Your task to perform on an android device: turn pop-ups on in chrome Image 0: 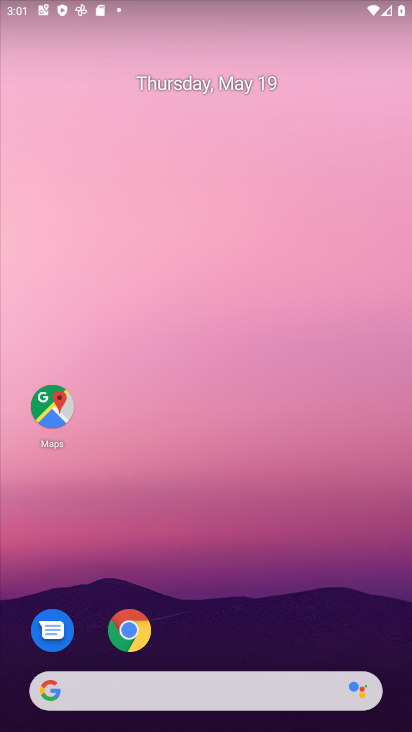
Step 0: click (129, 631)
Your task to perform on an android device: turn pop-ups on in chrome Image 1: 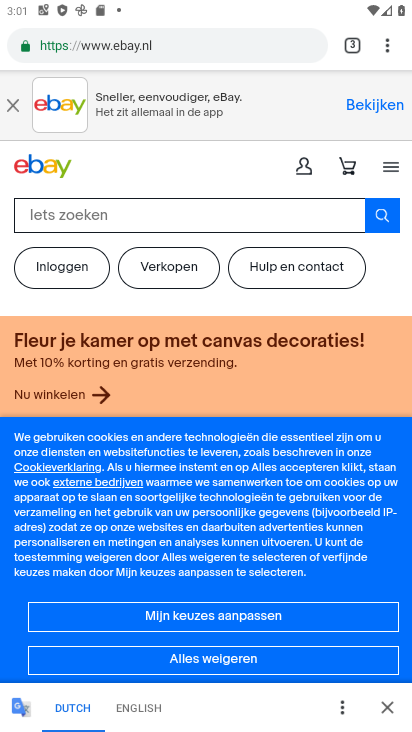
Step 1: click (385, 50)
Your task to perform on an android device: turn pop-ups on in chrome Image 2: 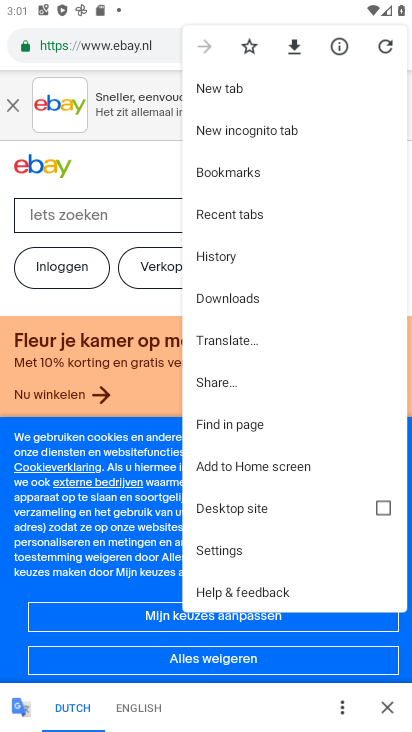
Step 2: click (227, 545)
Your task to perform on an android device: turn pop-ups on in chrome Image 3: 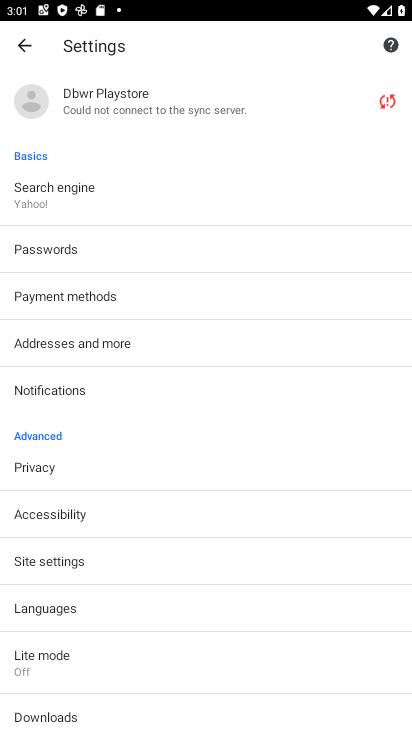
Step 3: click (54, 562)
Your task to perform on an android device: turn pop-ups on in chrome Image 4: 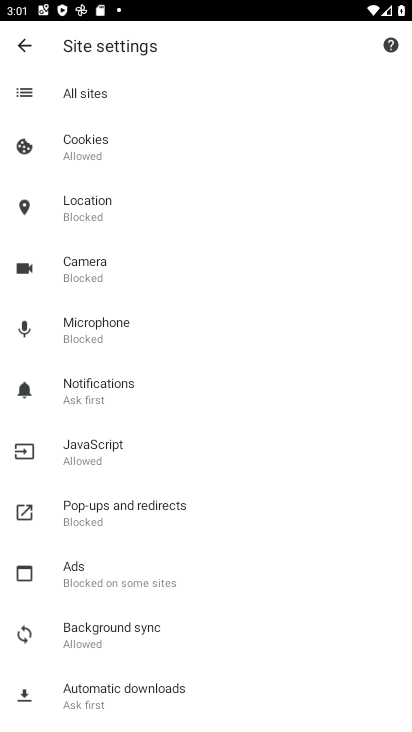
Step 4: click (108, 506)
Your task to perform on an android device: turn pop-ups on in chrome Image 5: 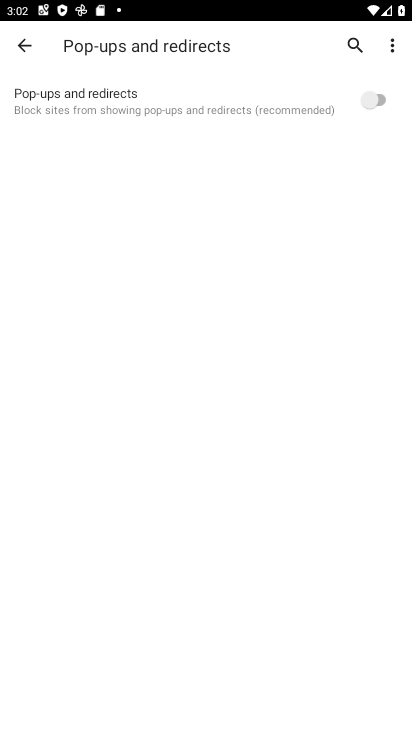
Step 5: click (378, 98)
Your task to perform on an android device: turn pop-ups on in chrome Image 6: 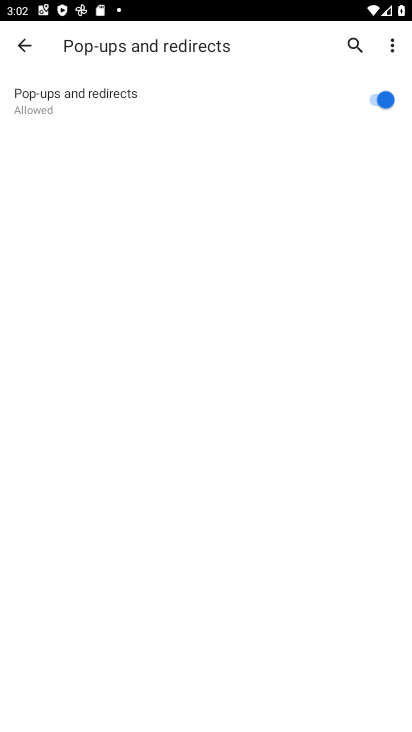
Step 6: task complete